Your task to perform on an android device: open sync settings in chrome Image 0: 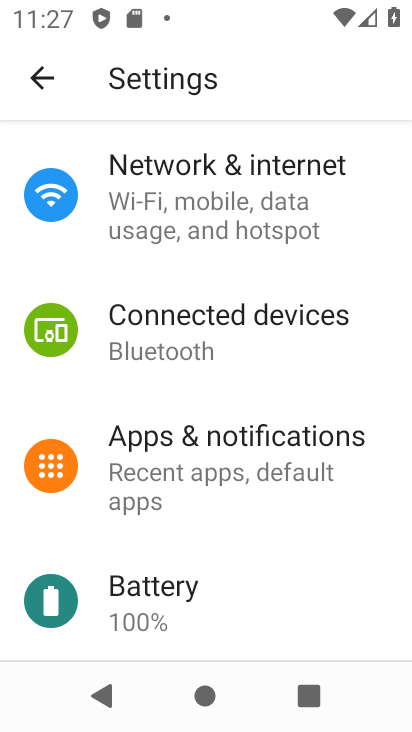
Step 0: press home button
Your task to perform on an android device: open sync settings in chrome Image 1: 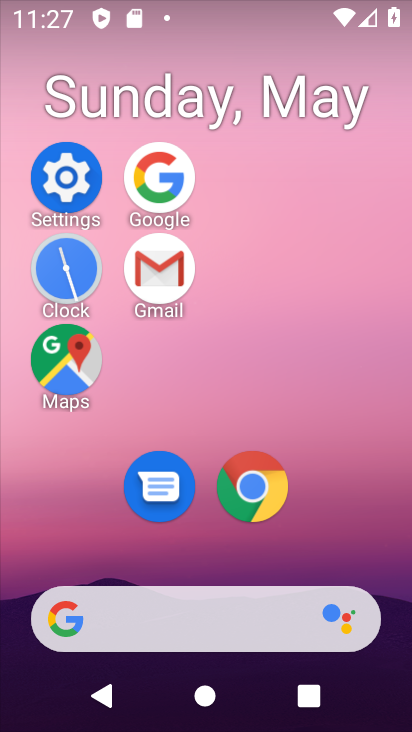
Step 1: click (235, 497)
Your task to perform on an android device: open sync settings in chrome Image 2: 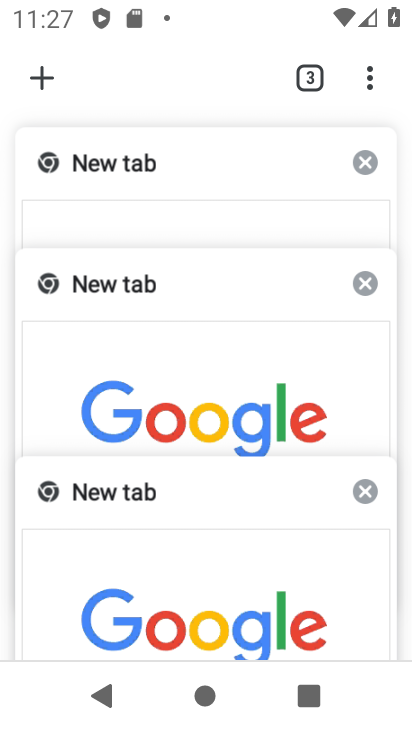
Step 2: click (34, 78)
Your task to perform on an android device: open sync settings in chrome Image 3: 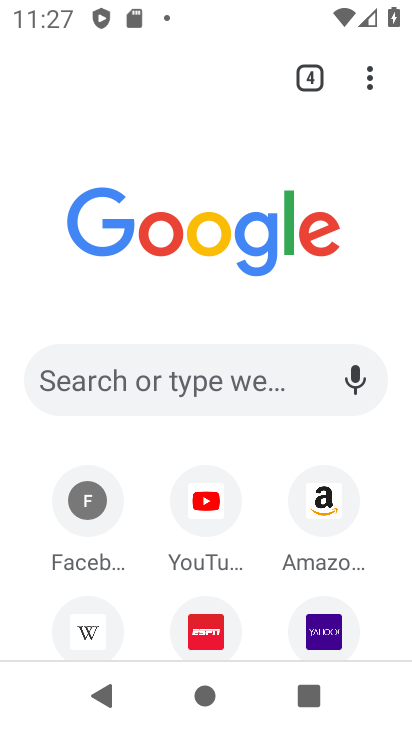
Step 3: click (377, 75)
Your task to perform on an android device: open sync settings in chrome Image 4: 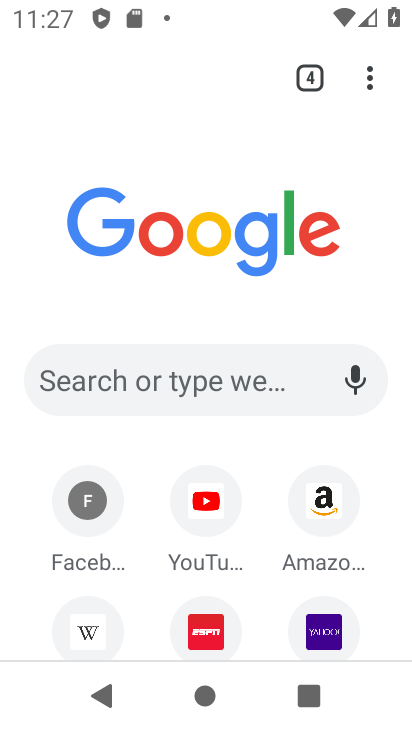
Step 4: click (375, 92)
Your task to perform on an android device: open sync settings in chrome Image 5: 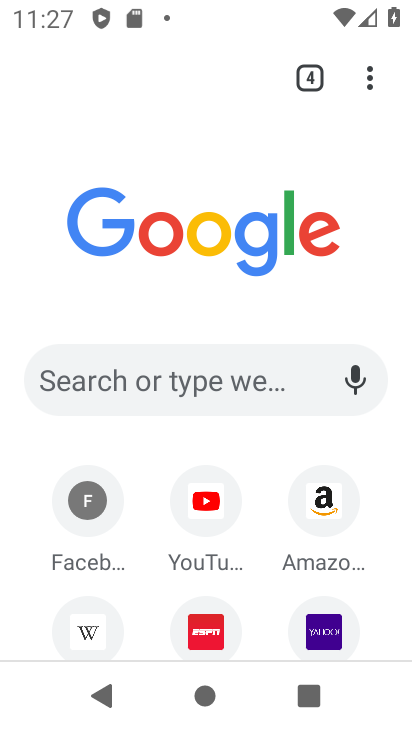
Step 5: click (367, 73)
Your task to perform on an android device: open sync settings in chrome Image 6: 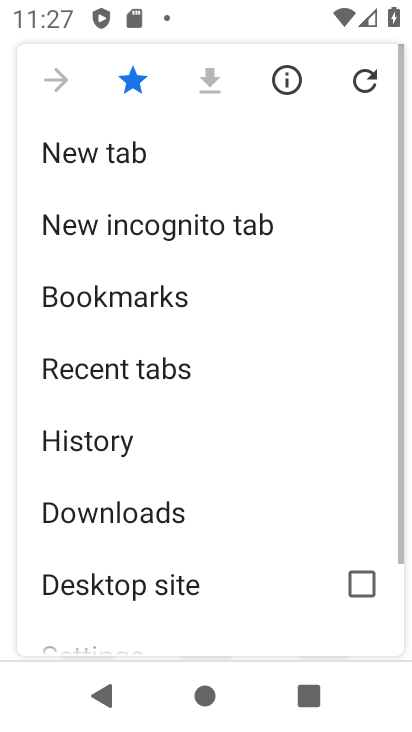
Step 6: drag from (180, 485) to (204, 142)
Your task to perform on an android device: open sync settings in chrome Image 7: 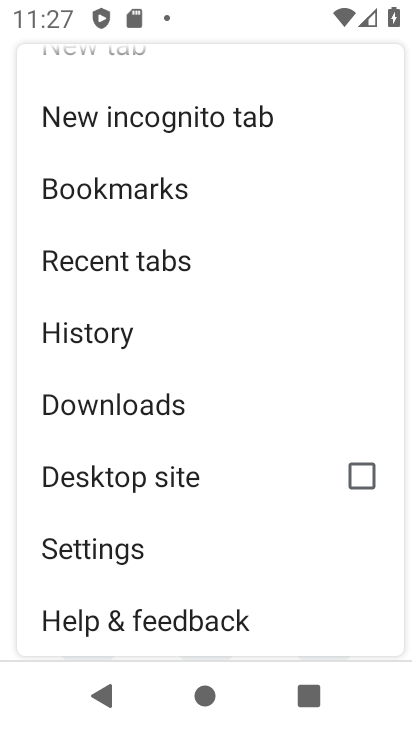
Step 7: click (201, 551)
Your task to perform on an android device: open sync settings in chrome Image 8: 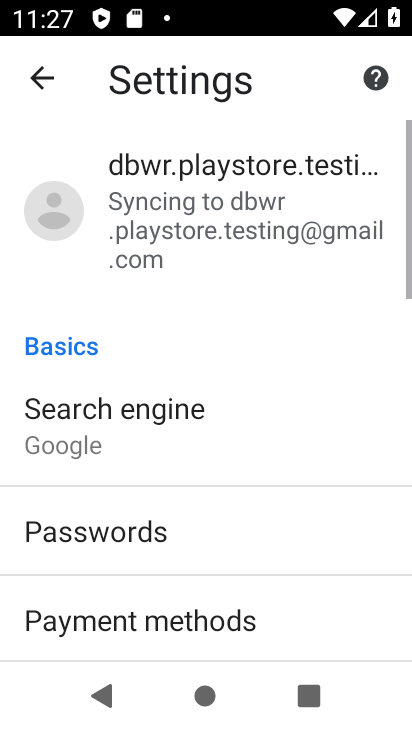
Step 8: drag from (201, 551) to (220, 188)
Your task to perform on an android device: open sync settings in chrome Image 9: 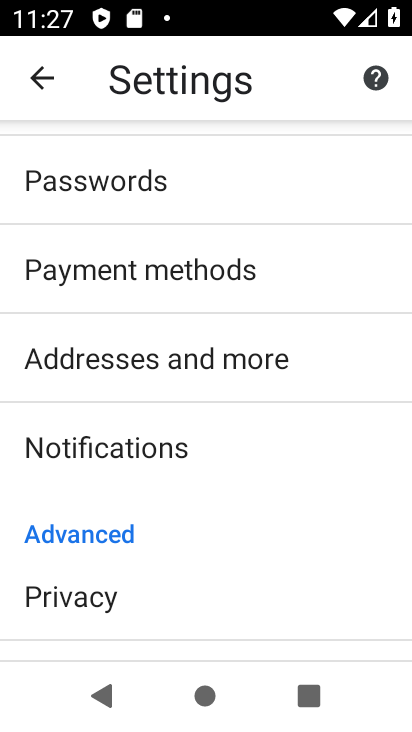
Step 9: drag from (232, 574) to (227, 252)
Your task to perform on an android device: open sync settings in chrome Image 10: 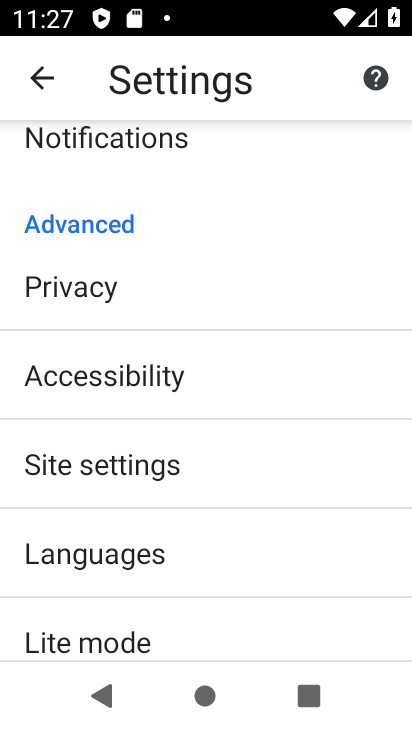
Step 10: click (241, 452)
Your task to perform on an android device: open sync settings in chrome Image 11: 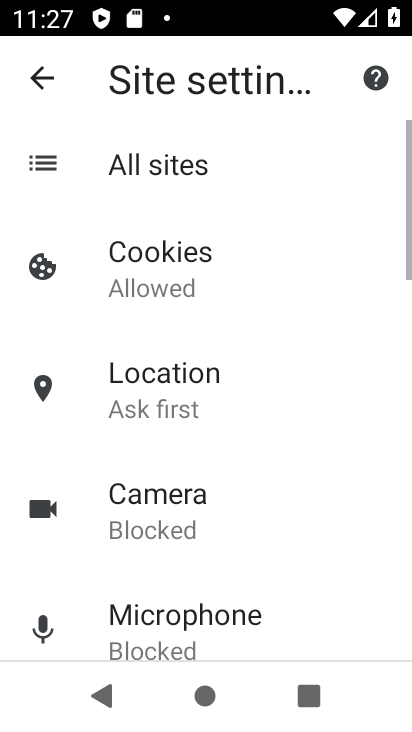
Step 11: drag from (240, 588) to (232, 241)
Your task to perform on an android device: open sync settings in chrome Image 12: 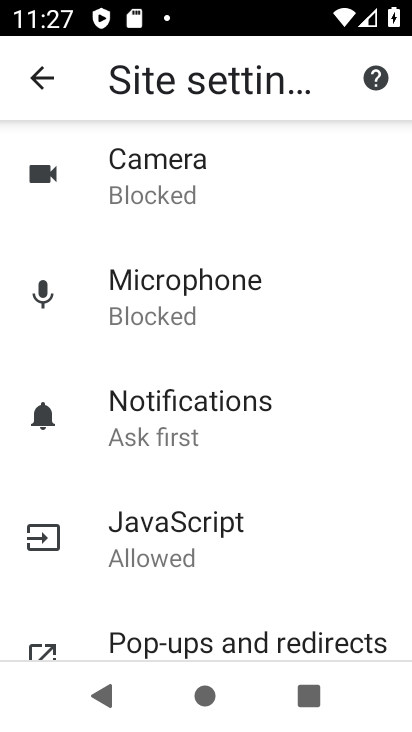
Step 12: drag from (255, 537) to (275, 263)
Your task to perform on an android device: open sync settings in chrome Image 13: 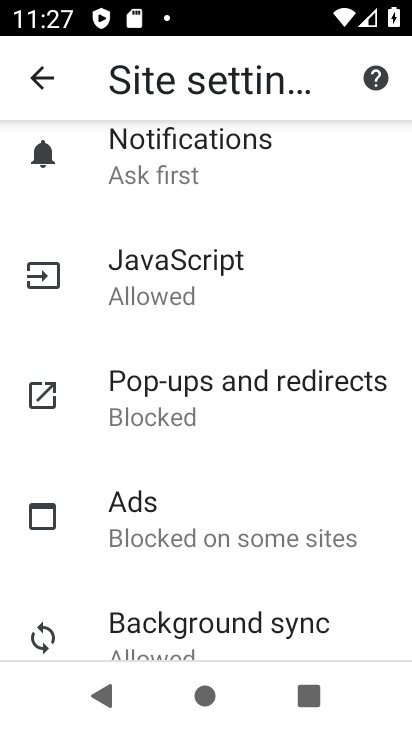
Step 13: click (253, 619)
Your task to perform on an android device: open sync settings in chrome Image 14: 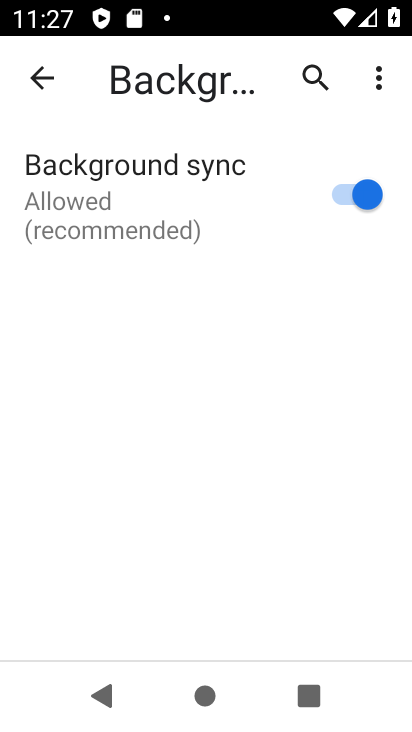
Step 14: task complete